Your task to perform on an android device: find photos in the google photos app Image 0: 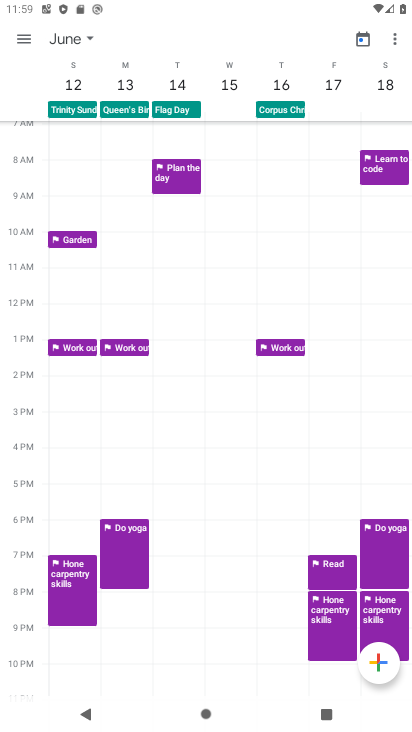
Step 0: press home button
Your task to perform on an android device: find photos in the google photos app Image 1: 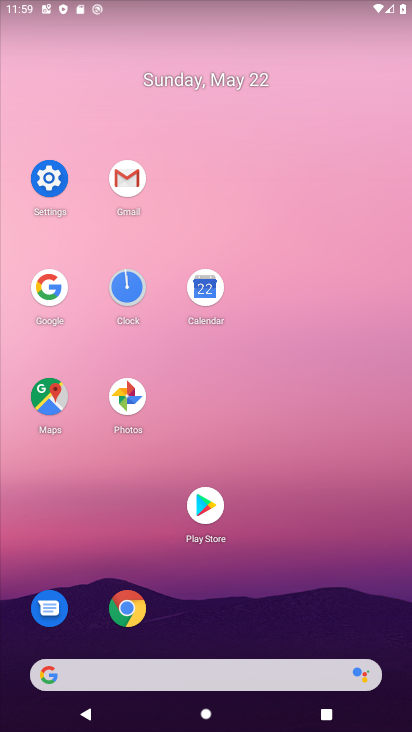
Step 1: click (142, 399)
Your task to perform on an android device: find photos in the google photos app Image 2: 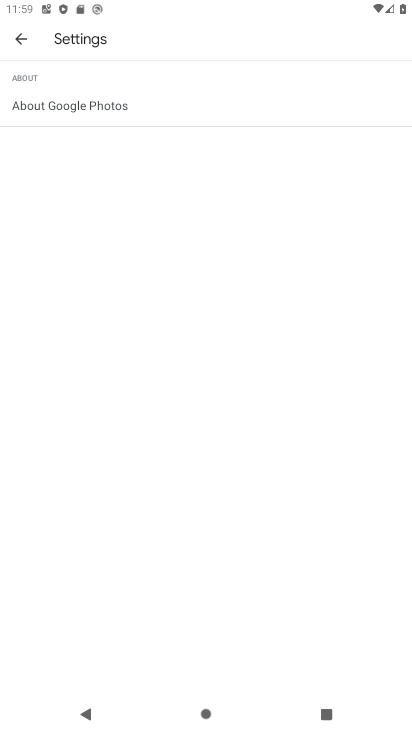
Step 2: click (30, 45)
Your task to perform on an android device: find photos in the google photos app Image 3: 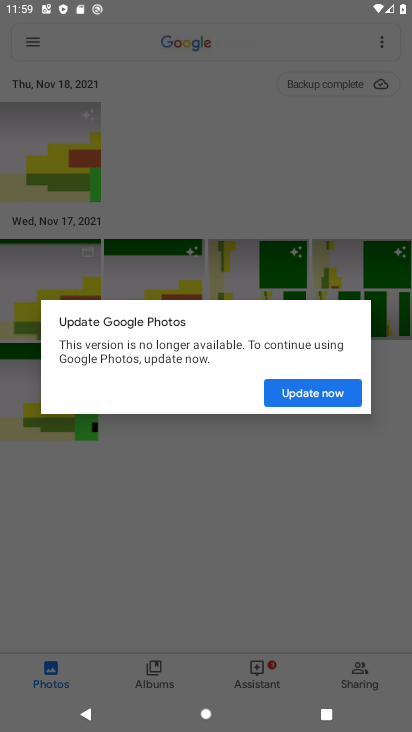
Step 3: click (337, 388)
Your task to perform on an android device: find photos in the google photos app Image 4: 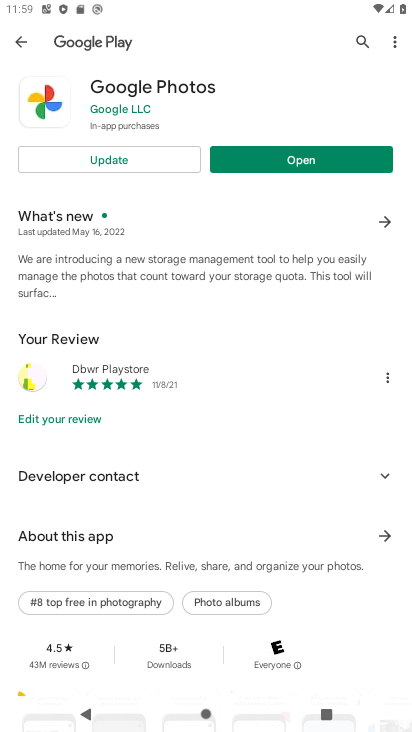
Step 4: click (133, 165)
Your task to perform on an android device: find photos in the google photos app Image 5: 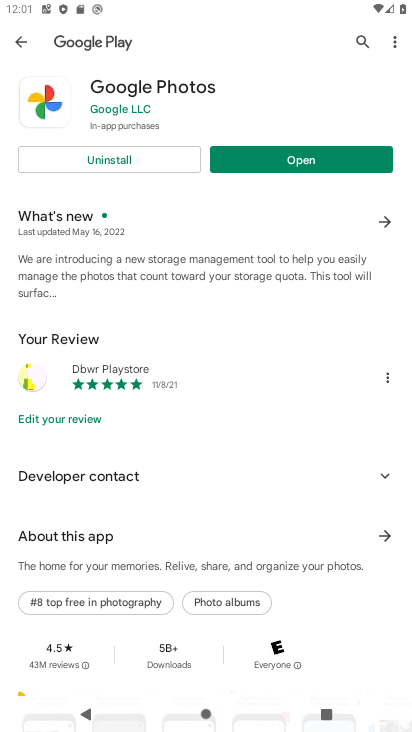
Step 5: click (310, 155)
Your task to perform on an android device: find photos in the google photos app Image 6: 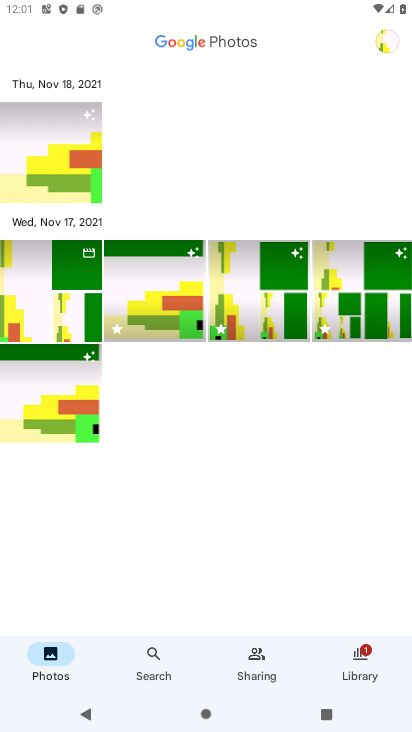
Step 6: click (58, 164)
Your task to perform on an android device: find photos in the google photos app Image 7: 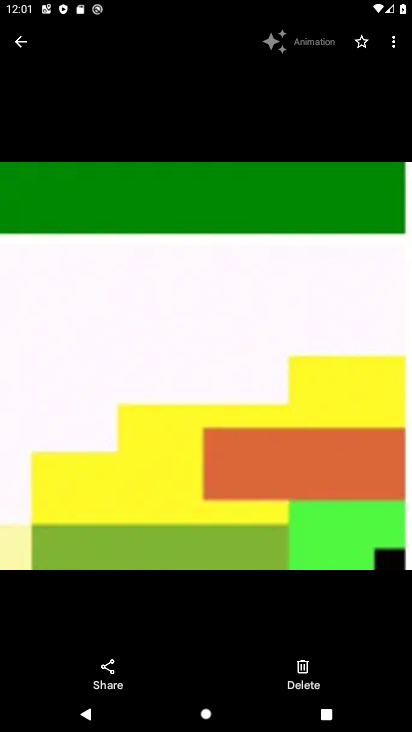
Step 7: task complete